Your task to perform on an android device: Is it going to rain today? Image 0: 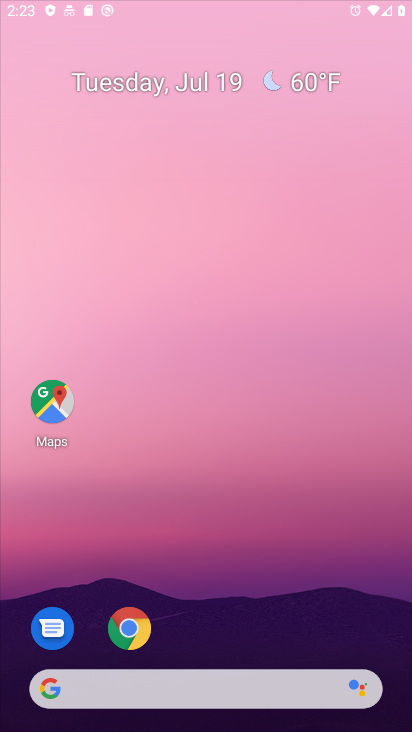
Step 0: press back button
Your task to perform on an android device: Is it going to rain today? Image 1: 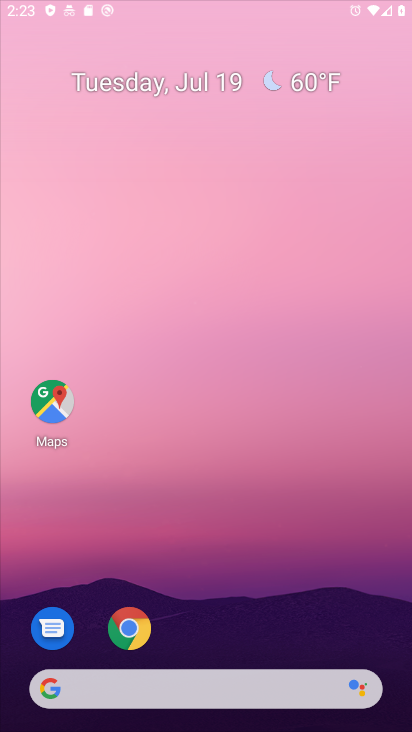
Step 1: click (171, 163)
Your task to perform on an android device: Is it going to rain today? Image 2: 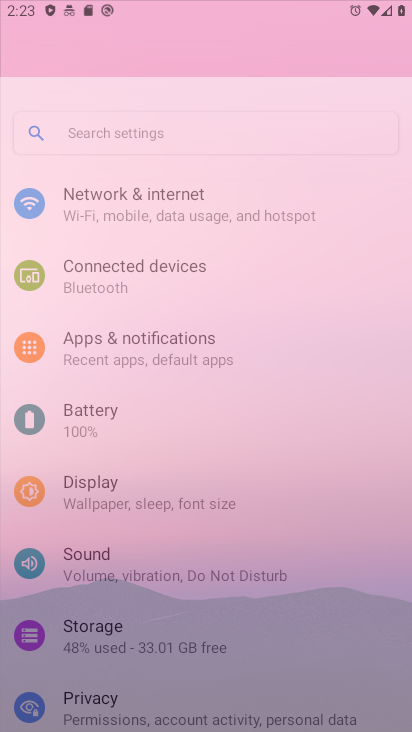
Step 2: drag from (224, 626) to (149, 51)
Your task to perform on an android device: Is it going to rain today? Image 3: 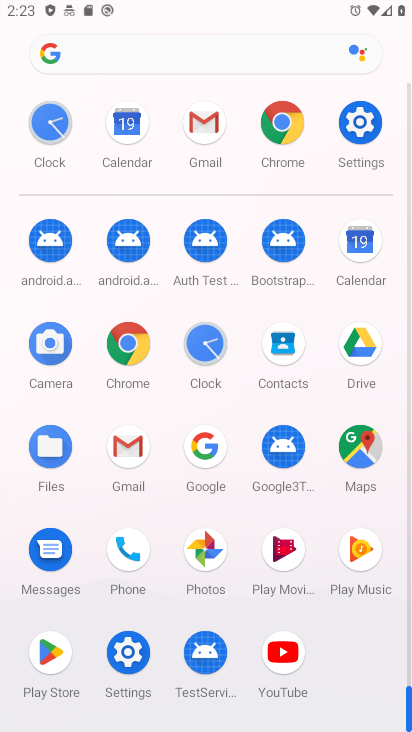
Step 3: press back button
Your task to perform on an android device: Is it going to rain today? Image 4: 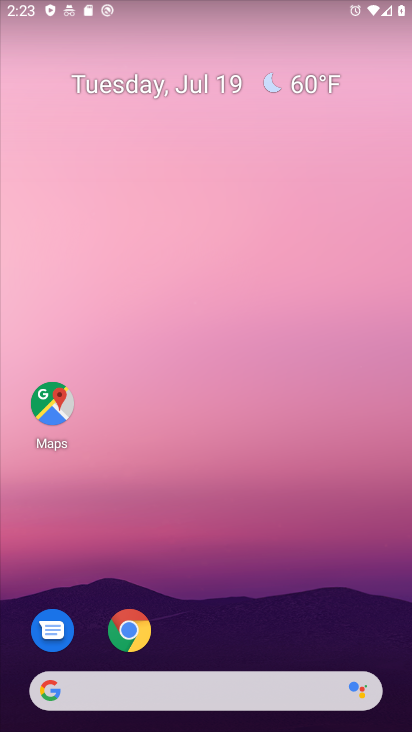
Step 4: drag from (4, 129) to (398, 367)
Your task to perform on an android device: Is it going to rain today? Image 5: 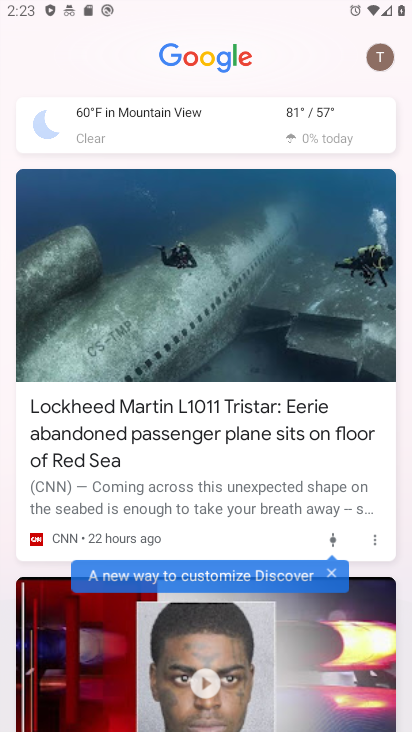
Step 5: click (148, 122)
Your task to perform on an android device: Is it going to rain today? Image 6: 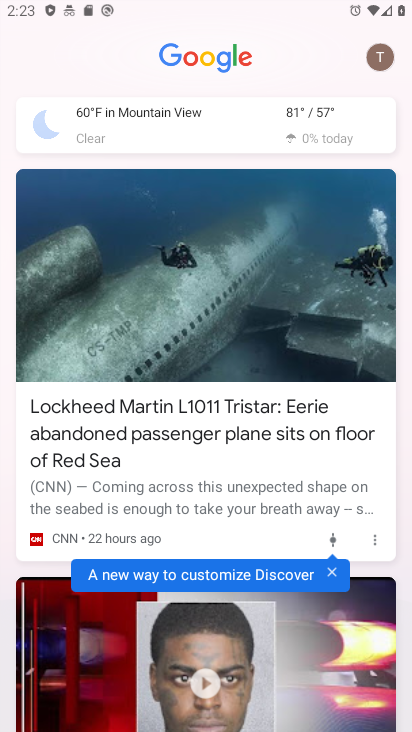
Step 6: click (174, 146)
Your task to perform on an android device: Is it going to rain today? Image 7: 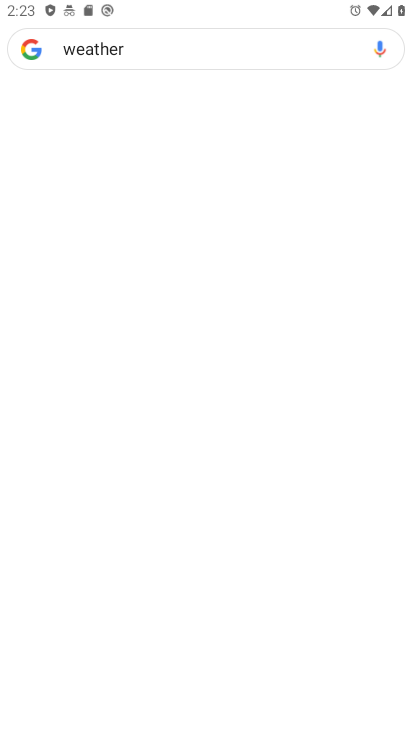
Step 7: click (179, 132)
Your task to perform on an android device: Is it going to rain today? Image 8: 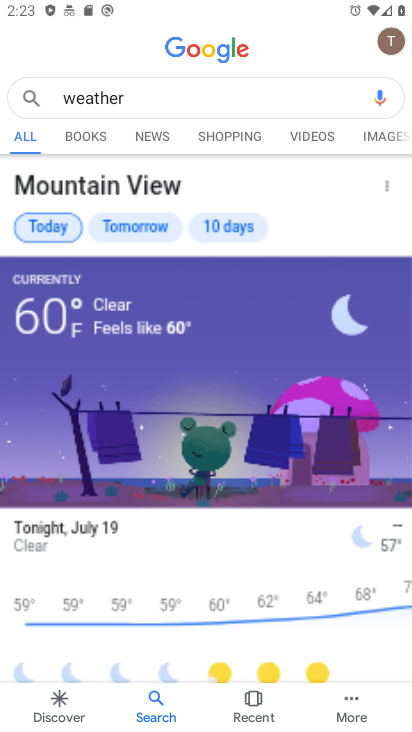
Step 8: task complete